Your task to perform on an android device: uninstall "Booking.com: Hotels and more" Image 0: 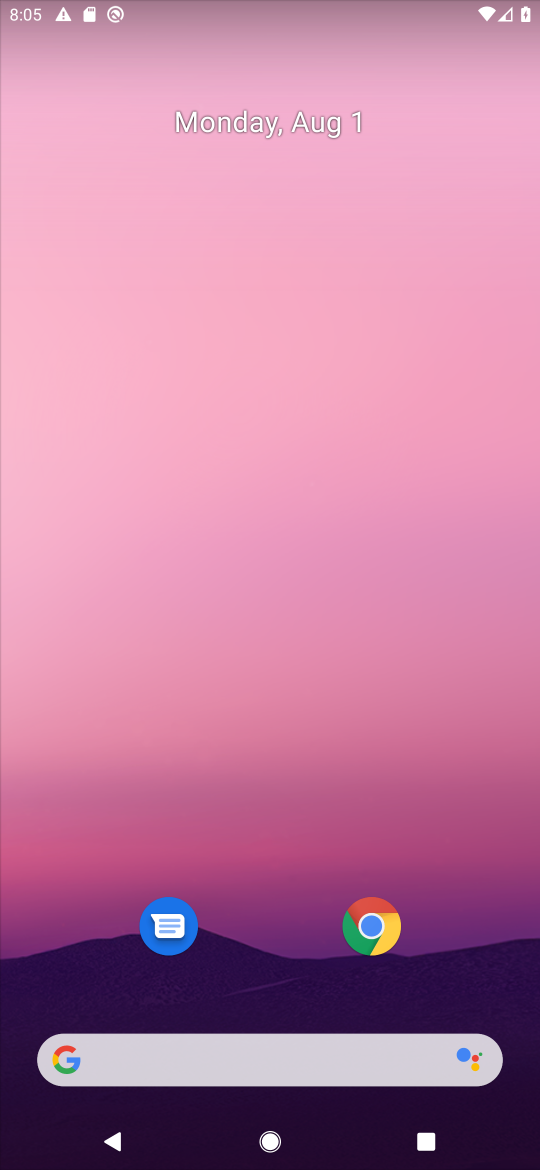
Step 0: press home button
Your task to perform on an android device: uninstall "Booking.com: Hotels and more" Image 1: 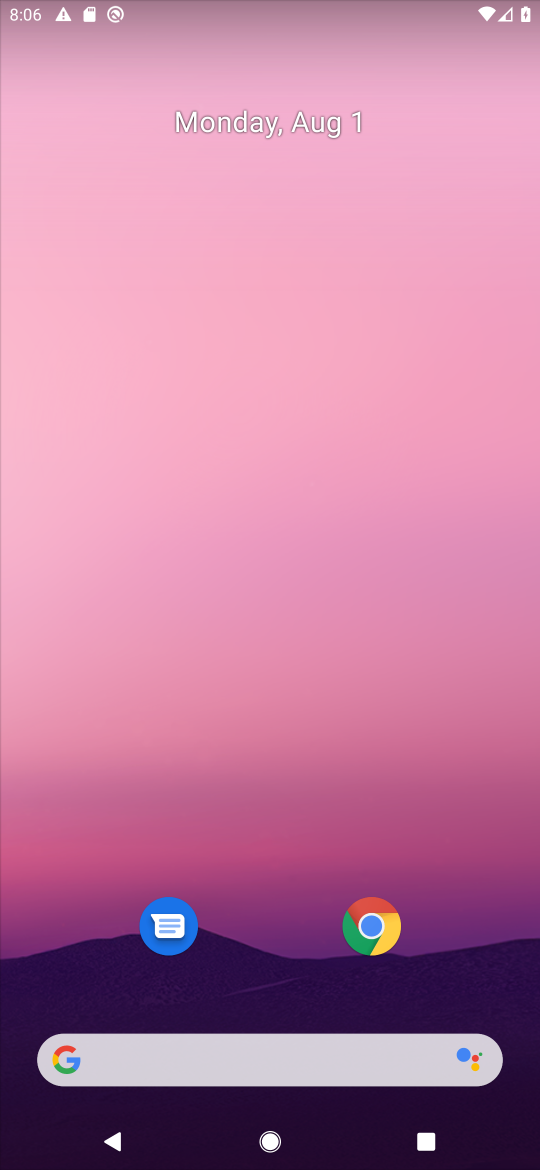
Step 1: drag from (268, 979) to (251, 131)
Your task to perform on an android device: uninstall "Booking.com: Hotels and more" Image 2: 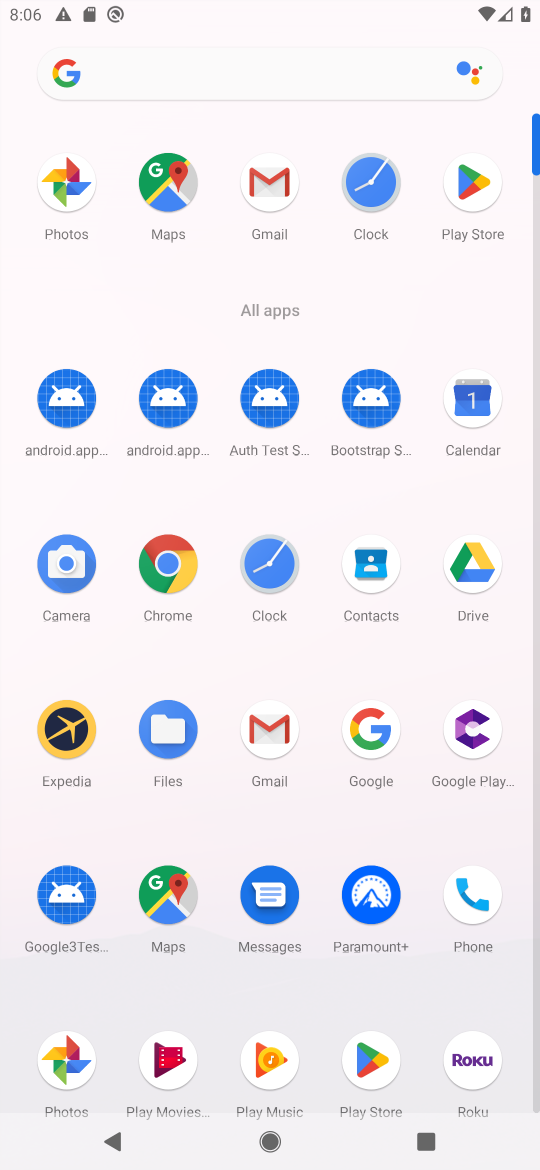
Step 2: click (467, 174)
Your task to perform on an android device: uninstall "Booking.com: Hotels and more" Image 3: 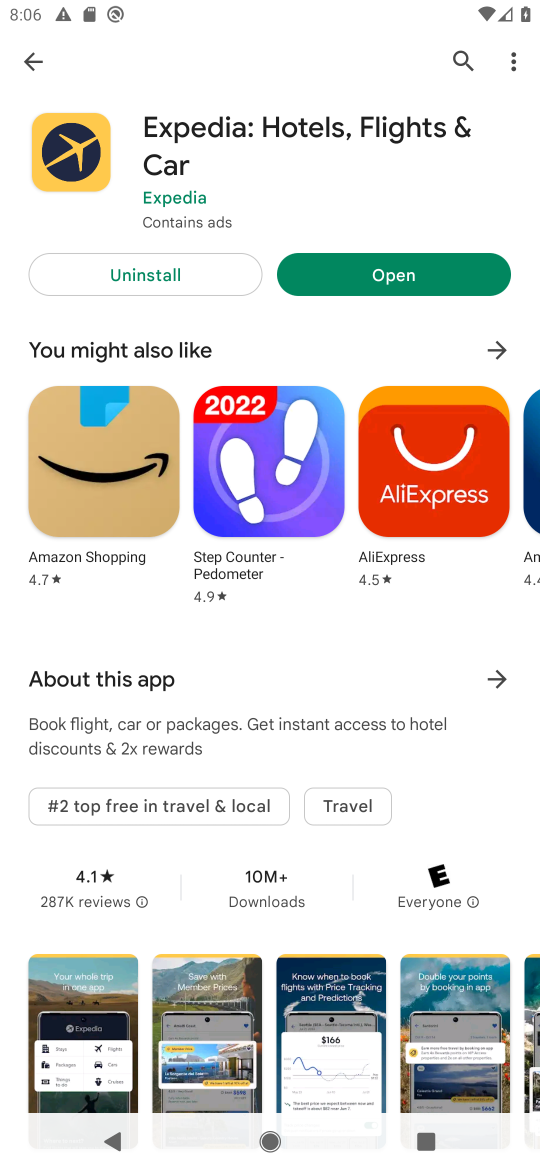
Step 3: click (448, 56)
Your task to perform on an android device: uninstall "Booking.com: Hotels and more" Image 4: 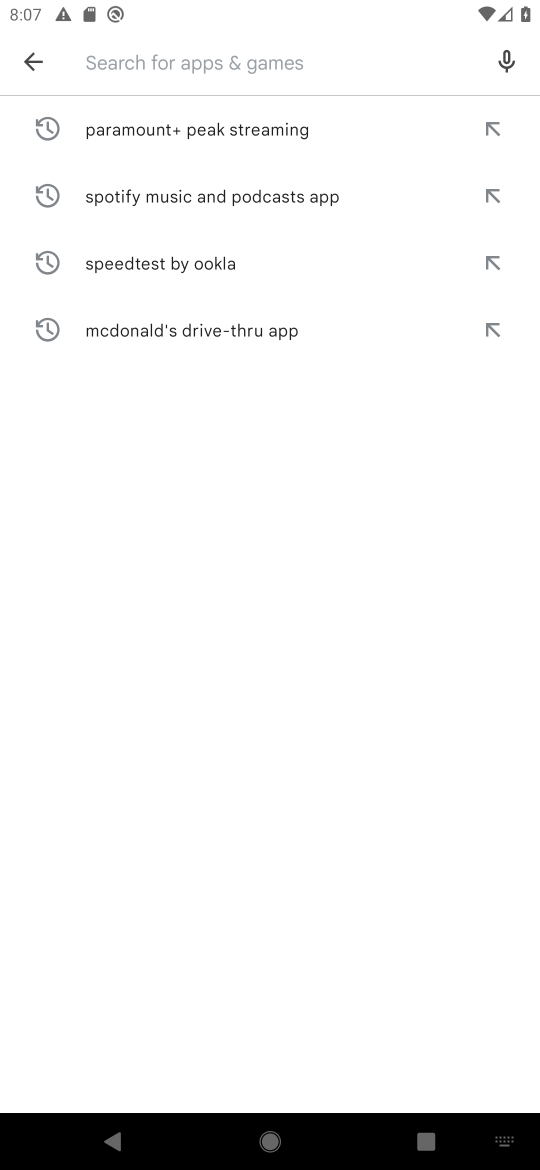
Step 4: type "Booking.com: Hotels and more"
Your task to perform on an android device: uninstall "Booking.com: Hotels and more" Image 5: 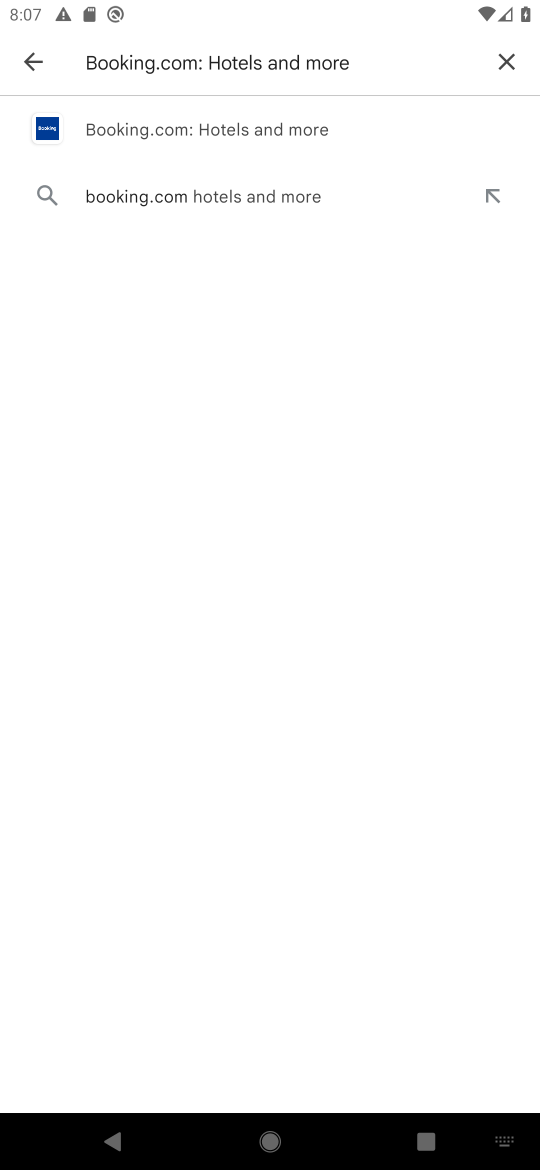
Step 5: click (281, 126)
Your task to perform on an android device: uninstall "Booking.com: Hotels and more" Image 6: 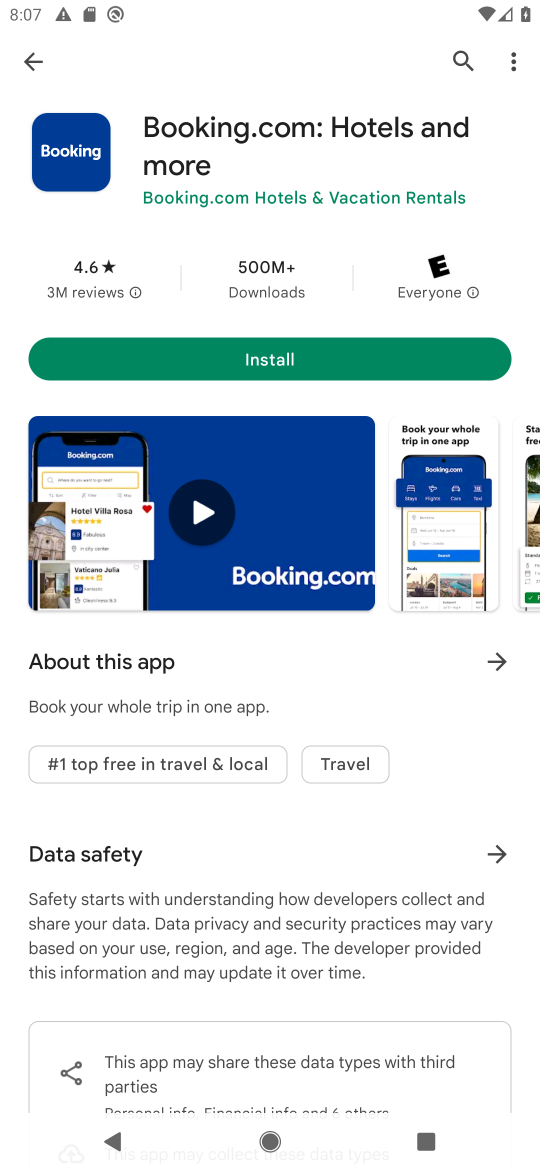
Step 6: task complete